Your task to perform on an android device: change the clock display to analog Image 0: 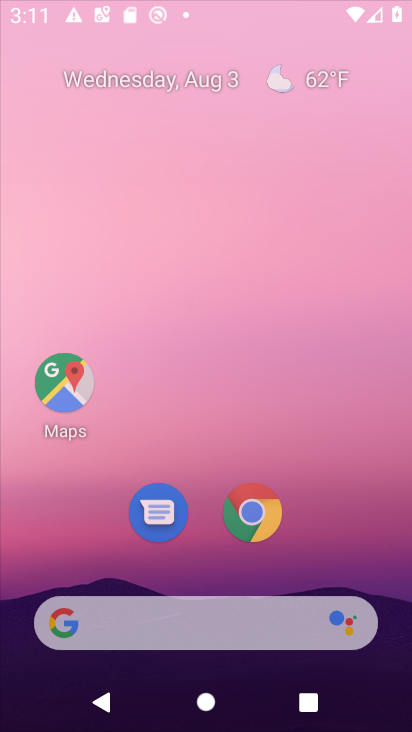
Step 0: click (340, 98)
Your task to perform on an android device: change the clock display to analog Image 1: 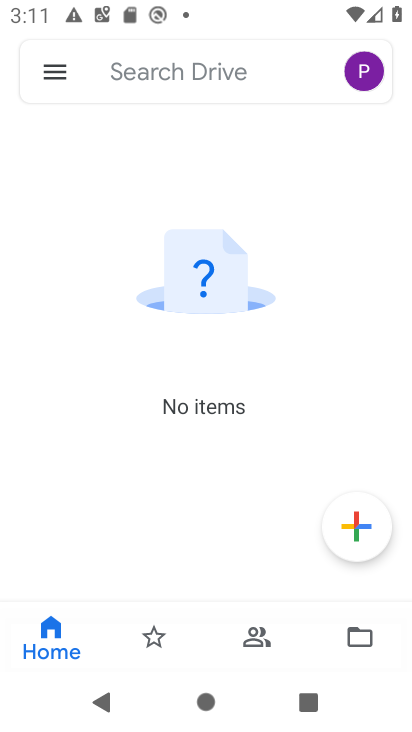
Step 1: press home button
Your task to perform on an android device: change the clock display to analog Image 2: 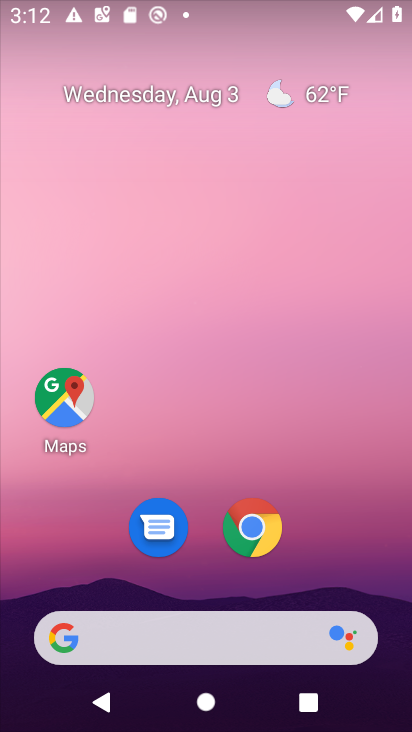
Step 2: drag from (337, 559) to (271, 18)
Your task to perform on an android device: change the clock display to analog Image 3: 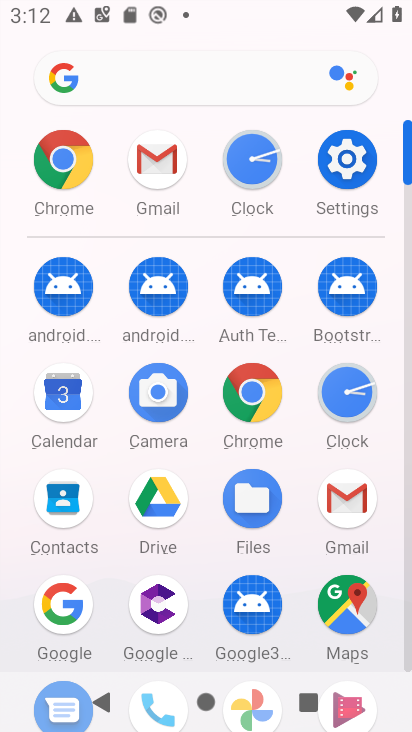
Step 3: click (345, 382)
Your task to perform on an android device: change the clock display to analog Image 4: 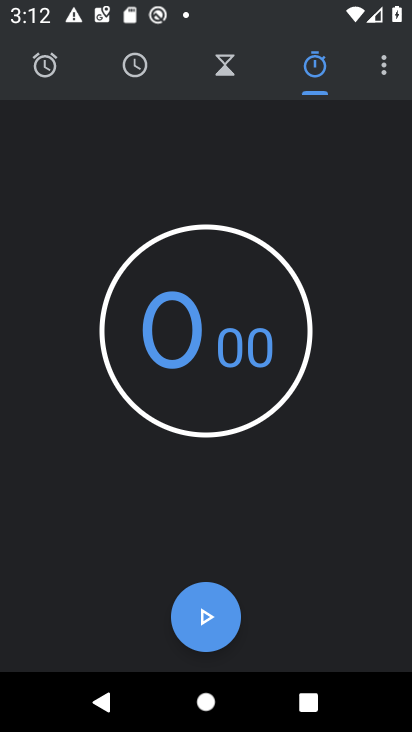
Step 4: click (385, 68)
Your task to perform on an android device: change the clock display to analog Image 5: 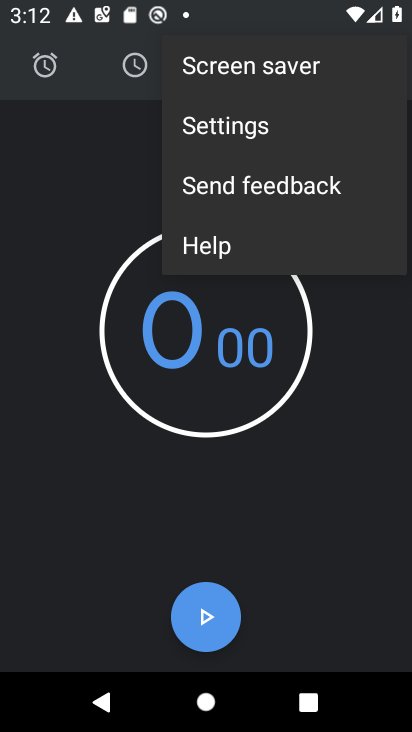
Step 5: click (274, 137)
Your task to perform on an android device: change the clock display to analog Image 6: 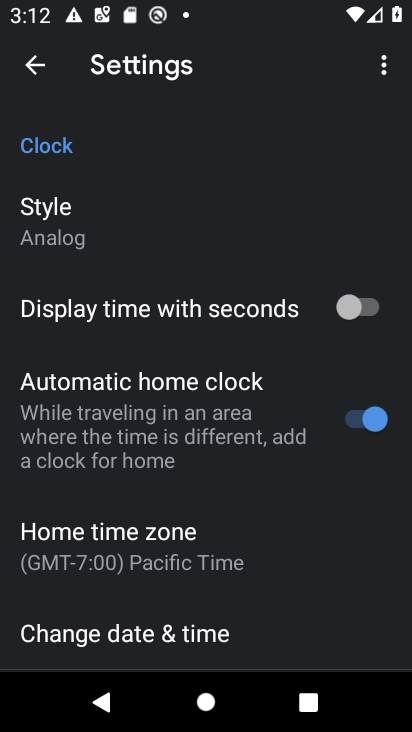
Step 6: task complete